Your task to perform on an android device: Open location settings Image 0: 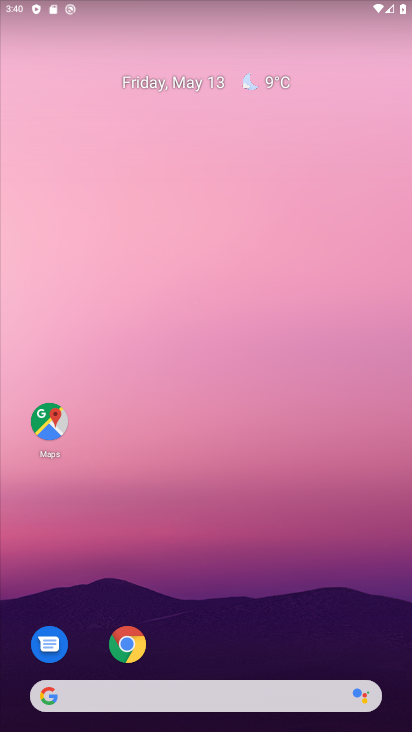
Step 0: drag from (251, 656) to (257, 272)
Your task to perform on an android device: Open location settings Image 1: 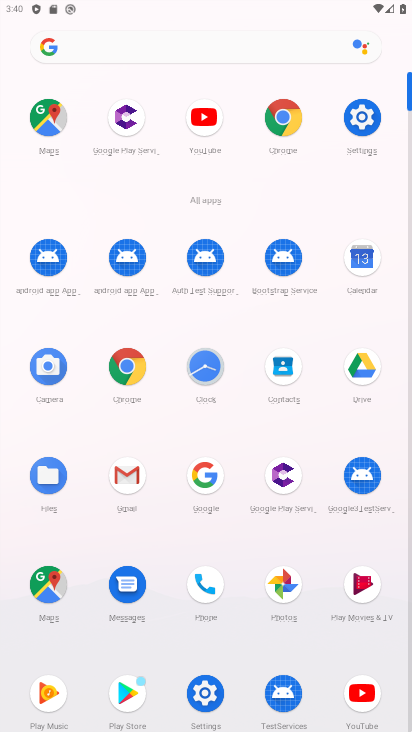
Step 1: click (370, 114)
Your task to perform on an android device: Open location settings Image 2: 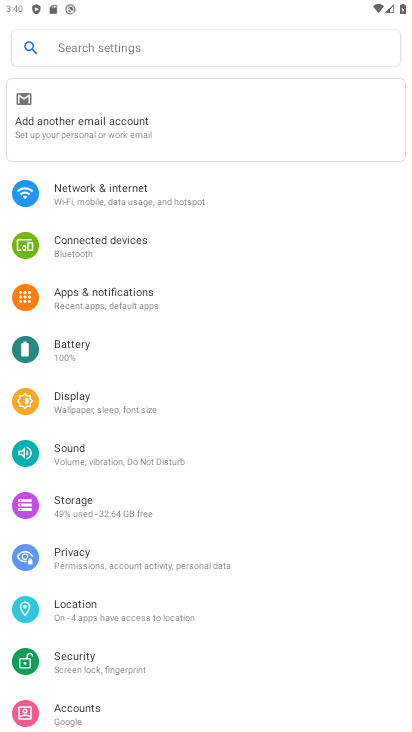
Step 2: click (167, 611)
Your task to perform on an android device: Open location settings Image 3: 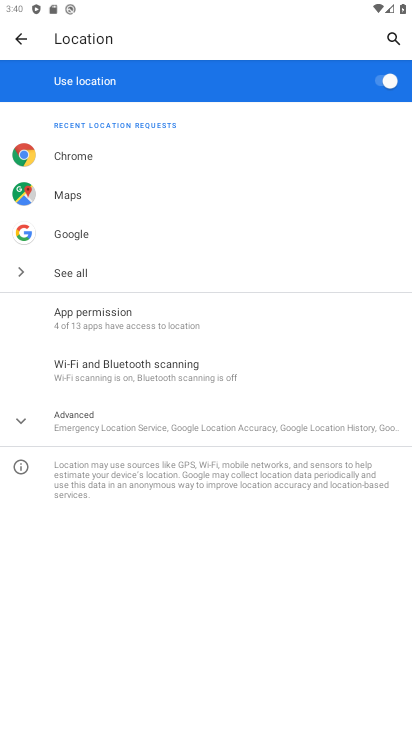
Step 3: task complete